Your task to perform on an android device: open a new tab in the chrome app Image 0: 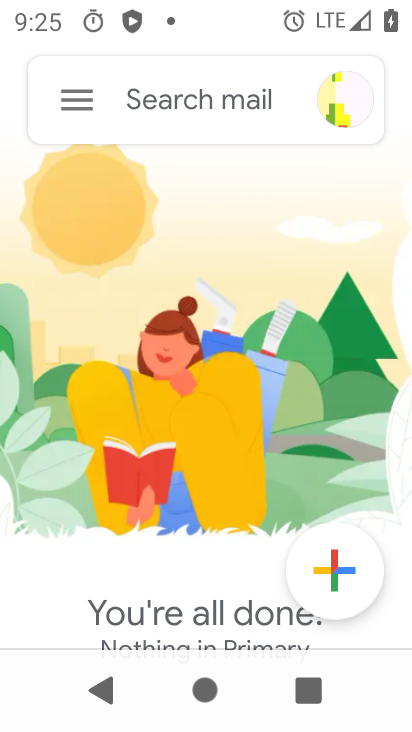
Step 0: press home button
Your task to perform on an android device: open a new tab in the chrome app Image 1: 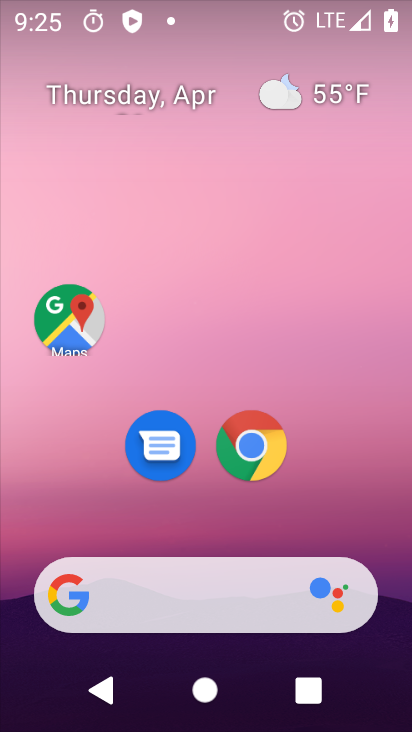
Step 1: click (247, 453)
Your task to perform on an android device: open a new tab in the chrome app Image 2: 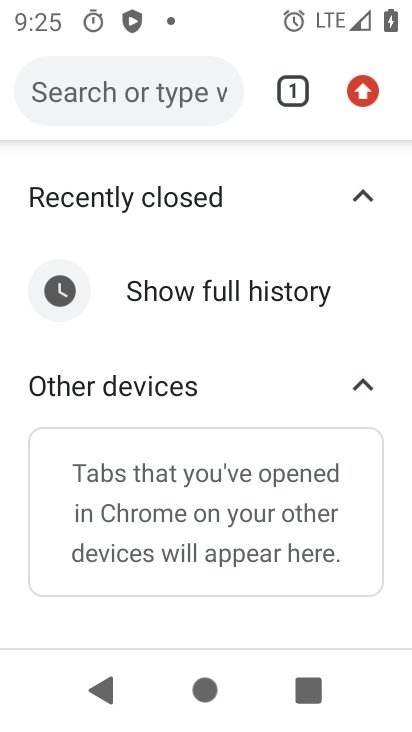
Step 2: click (355, 98)
Your task to perform on an android device: open a new tab in the chrome app Image 3: 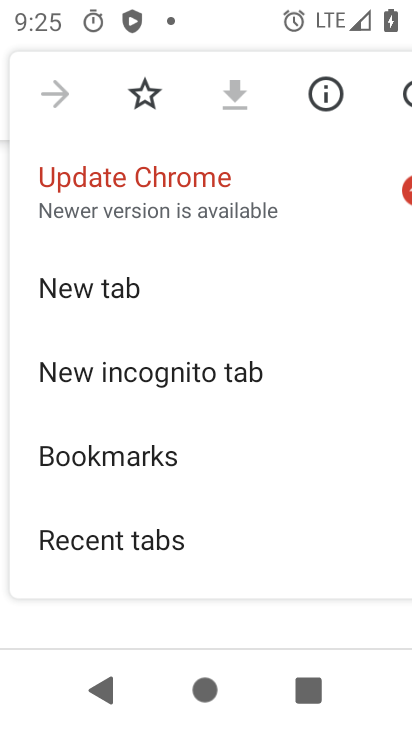
Step 3: click (99, 280)
Your task to perform on an android device: open a new tab in the chrome app Image 4: 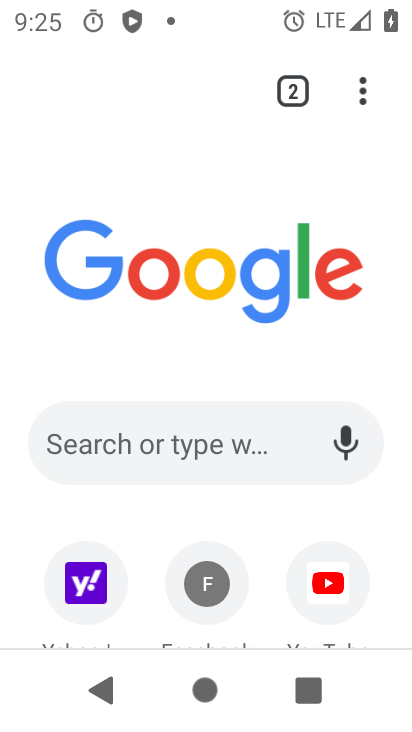
Step 4: task complete